Your task to perform on an android device: open app "Flipkart Online Shopping App" (install if not already installed), go to login, and select forgot password Image 0: 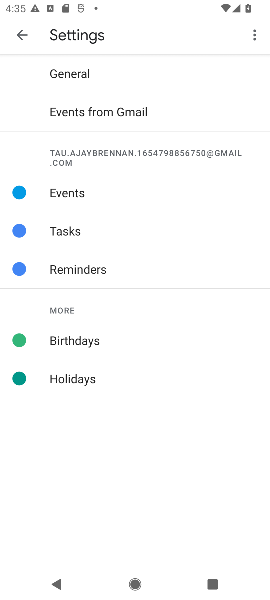
Step 0: click (19, 42)
Your task to perform on an android device: open app "Flipkart Online Shopping App" (install if not already installed), go to login, and select forgot password Image 1: 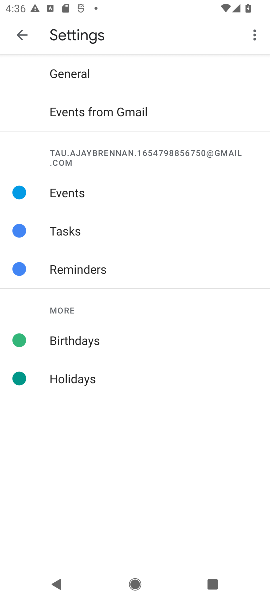
Step 1: click (19, 44)
Your task to perform on an android device: open app "Flipkart Online Shopping App" (install if not already installed), go to login, and select forgot password Image 2: 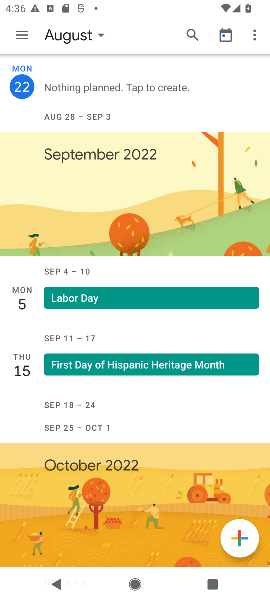
Step 2: press home button
Your task to perform on an android device: open app "Flipkart Online Shopping App" (install if not already installed), go to login, and select forgot password Image 3: 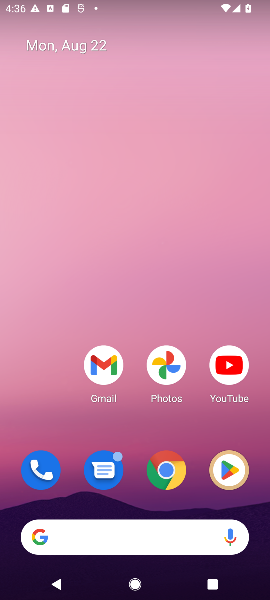
Step 3: drag from (138, 510) to (147, 106)
Your task to perform on an android device: open app "Flipkart Online Shopping App" (install if not already installed), go to login, and select forgot password Image 4: 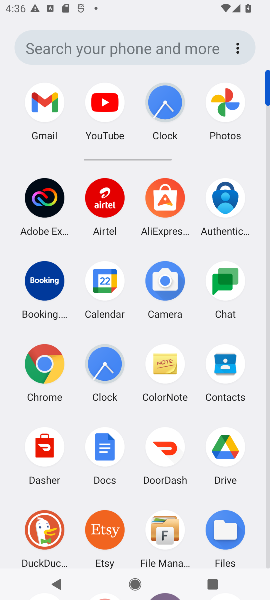
Step 4: drag from (137, 493) to (139, 167)
Your task to perform on an android device: open app "Flipkart Online Shopping App" (install if not already installed), go to login, and select forgot password Image 5: 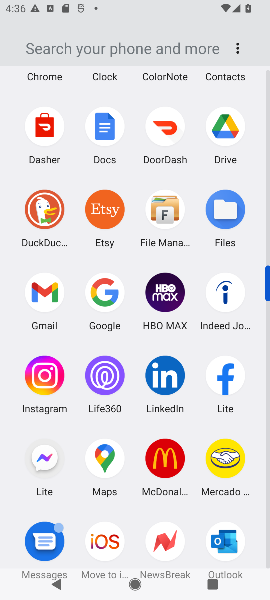
Step 5: drag from (114, 532) to (153, 121)
Your task to perform on an android device: open app "Flipkart Online Shopping App" (install if not already installed), go to login, and select forgot password Image 6: 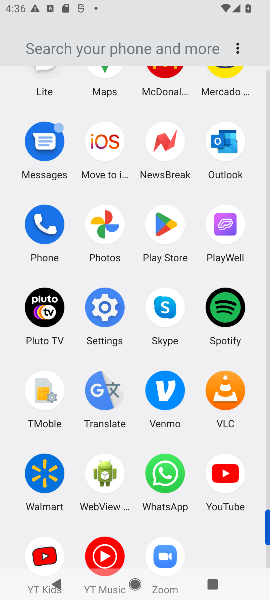
Step 6: drag from (132, 535) to (145, 169)
Your task to perform on an android device: open app "Flipkart Online Shopping App" (install if not already installed), go to login, and select forgot password Image 7: 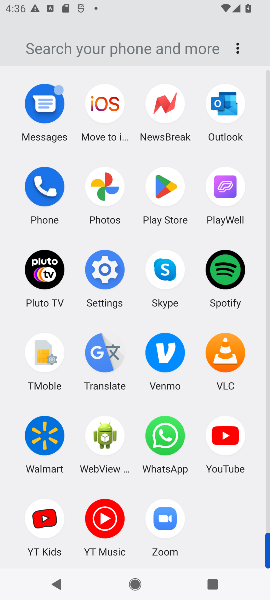
Step 7: click (171, 179)
Your task to perform on an android device: open app "Flipkart Online Shopping App" (install if not already installed), go to login, and select forgot password Image 8: 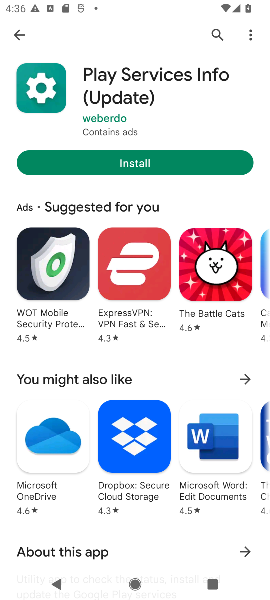
Step 8: click (22, 37)
Your task to perform on an android device: open app "Flipkart Online Shopping App" (install if not already installed), go to login, and select forgot password Image 9: 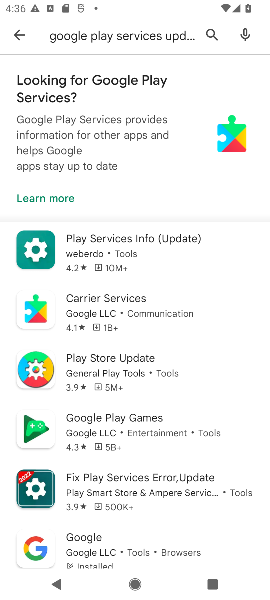
Step 9: click (34, 40)
Your task to perform on an android device: open app "Flipkart Online Shopping App" (install if not already installed), go to login, and select forgot password Image 10: 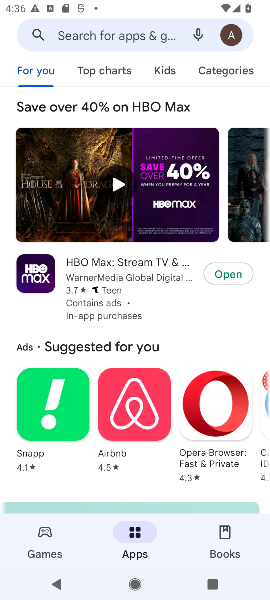
Step 10: click (92, 28)
Your task to perform on an android device: open app "Flipkart Online Shopping App" (install if not already installed), go to login, and select forgot password Image 11: 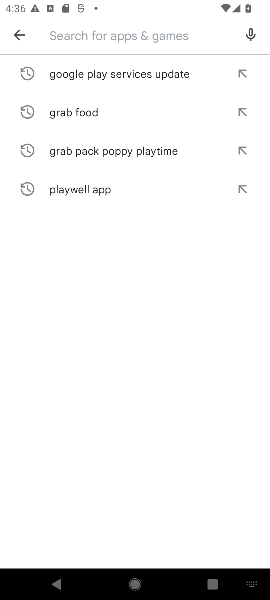
Step 11: type "Flipkart Online Shopping App "
Your task to perform on an android device: open app "Flipkart Online Shopping App" (install if not already installed), go to login, and select forgot password Image 12: 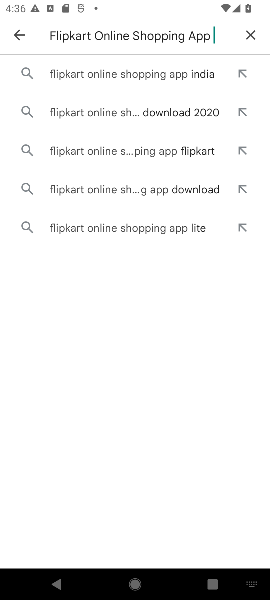
Step 12: click (87, 71)
Your task to perform on an android device: open app "Flipkart Online Shopping App" (install if not already installed), go to login, and select forgot password Image 13: 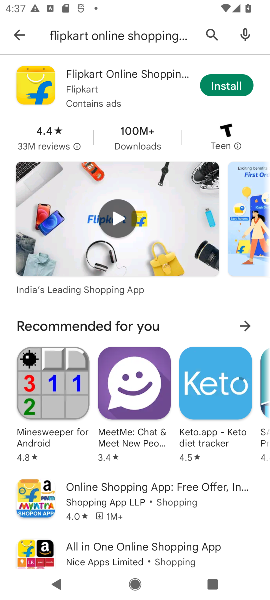
Step 13: click (245, 87)
Your task to perform on an android device: open app "Flipkart Online Shopping App" (install if not already installed), go to login, and select forgot password Image 14: 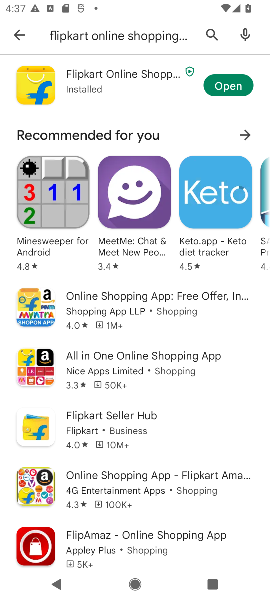
Step 14: click (238, 73)
Your task to perform on an android device: open app "Flipkart Online Shopping App" (install if not already installed), go to login, and select forgot password Image 15: 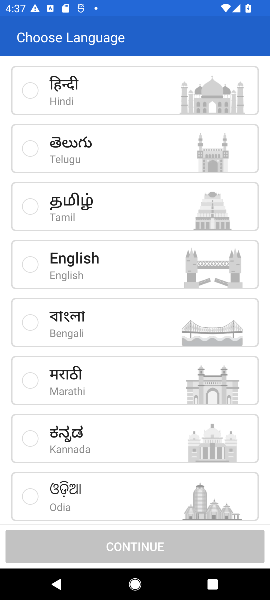
Step 15: task complete